Your task to perform on an android device: open chrome privacy settings Image 0: 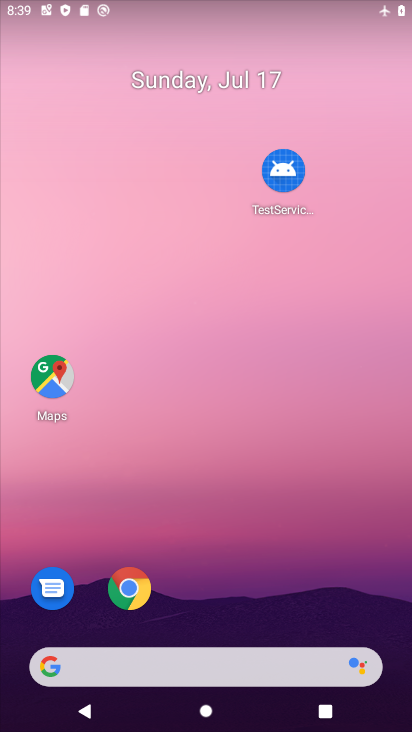
Step 0: drag from (195, 662) to (226, 178)
Your task to perform on an android device: open chrome privacy settings Image 1: 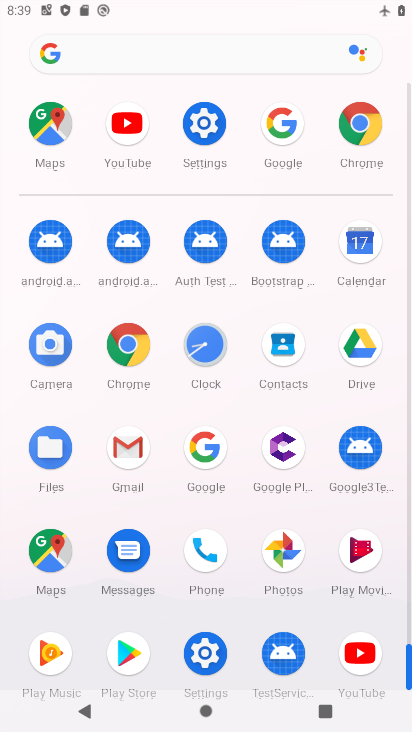
Step 1: click (377, 147)
Your task to perform on an android device: open chrome privacy settings Image 2: 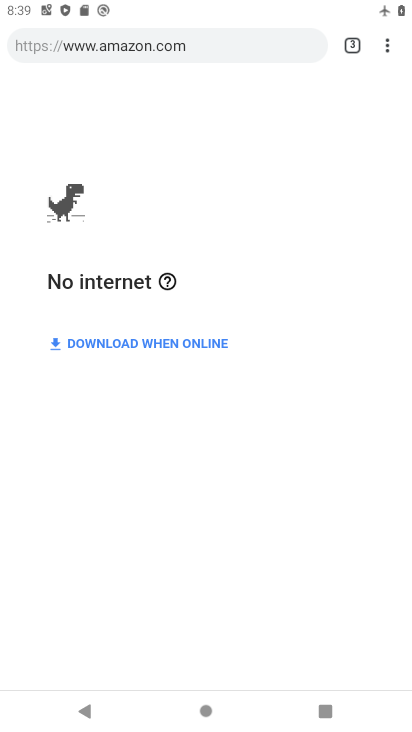
Step 2: click (392, 55)
Your task to perform on an android device: open chrome privacy settings Image 3: 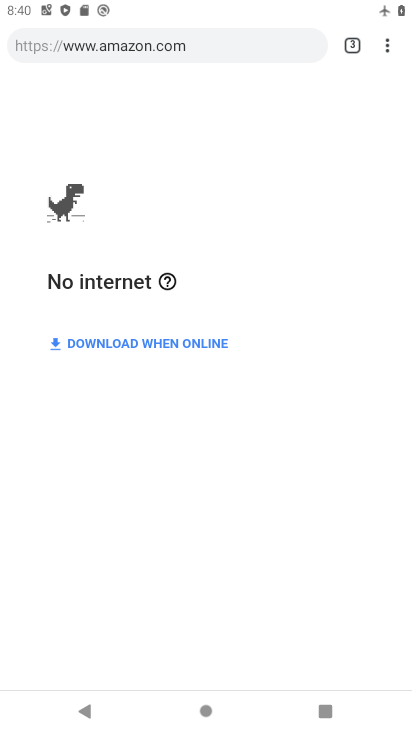
Step 3: click (387, 54)
Your task to perform on an android device: open chrome privacy settings Image 4: 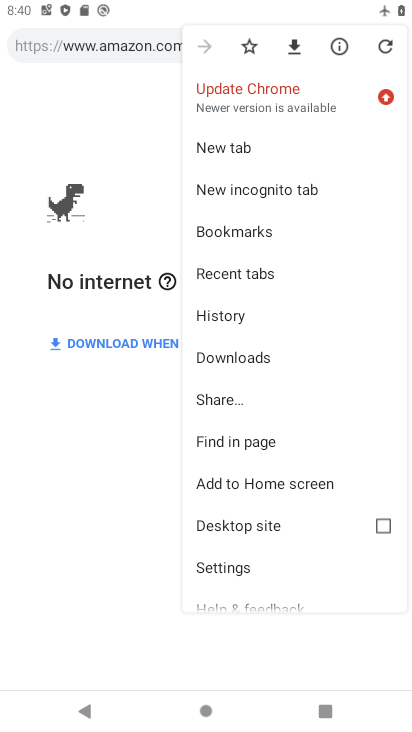
Step 4: click (223, 568)
Your task to perform on an android device: open chrome privacy settings Image 5: 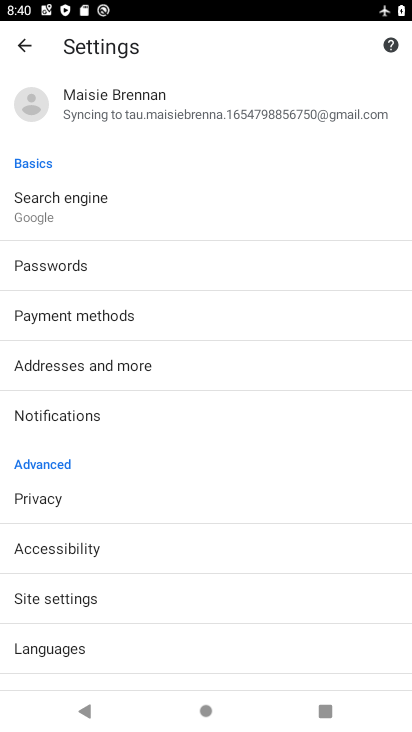
Step 5: click (40, 504)
Your task to perform on an android device: open chrome privacy settings Image 6: 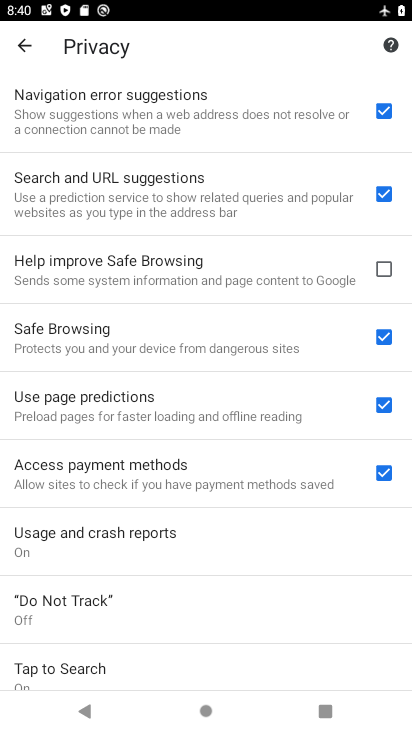
Step 6: task complete